Your task to perform on an android device: toggle notifications settings in the gmail app Image 0: 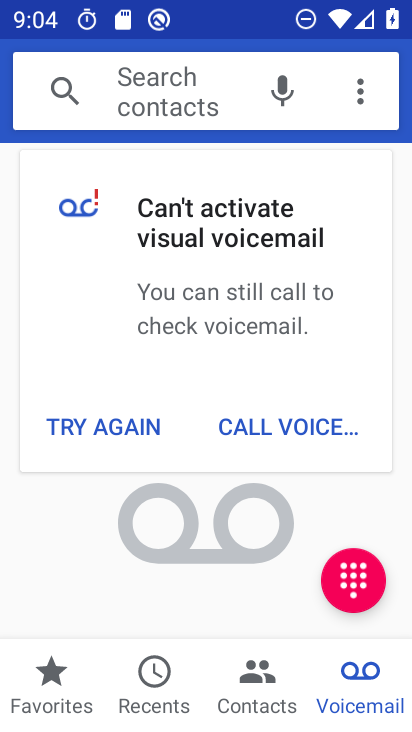
Step 0: press home button
Your task to perform on an android device: toggle notifications settings in the gmail app Image 1: 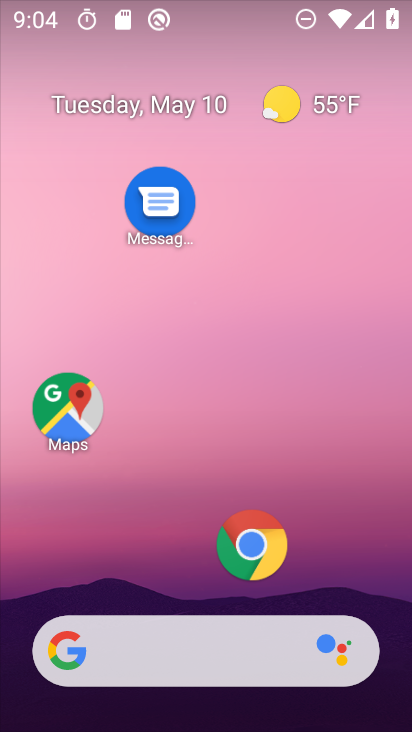
Step 1: drag from (198, 591) to (200, 173)
Your task to perform on an android device: toggle notifications settings in the gmail app Image 2: 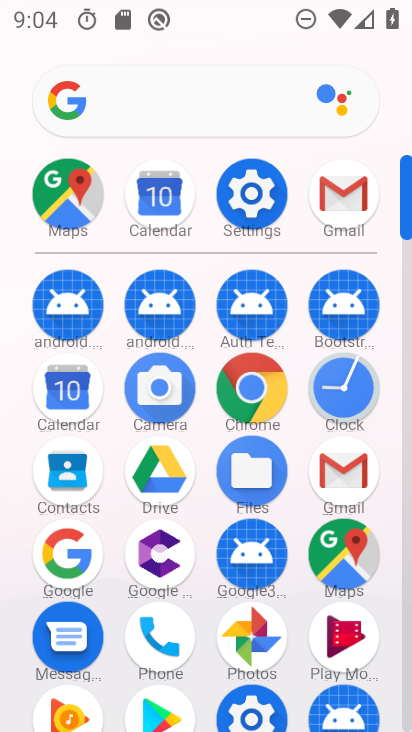
Step 2: click (334, 207)
Your task to perform on an android device: toggle notifications settings in the gmail app Image 3: 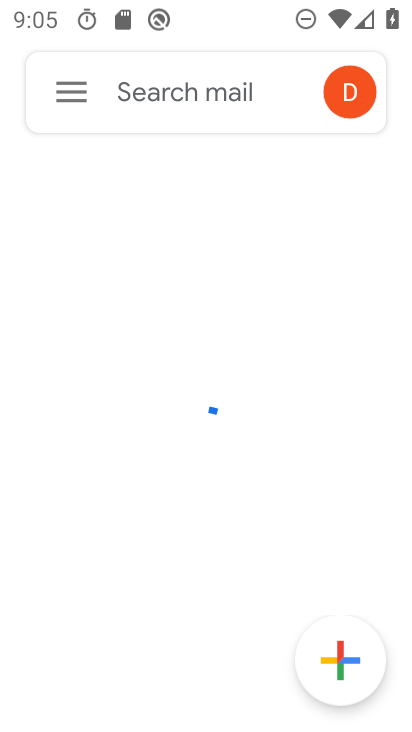
Step 3: click (84, 97)
Your task to perform on an android device: toggle notifications settings in the gmail app Image 4: 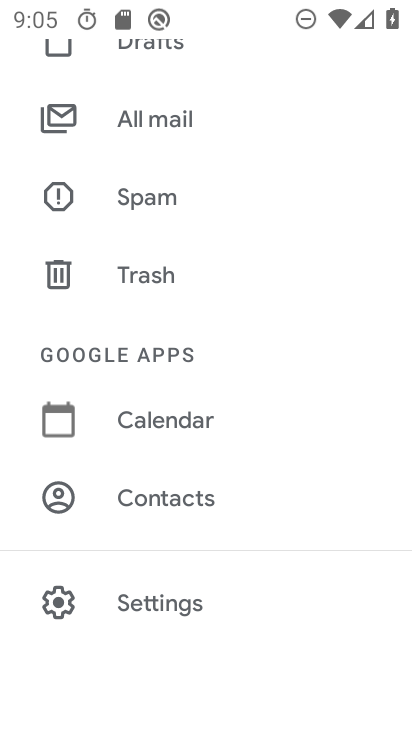
Step 4: click (171, 586)
Your task to perform on an android device: toggle notifications settings in the gmail app Image 5: 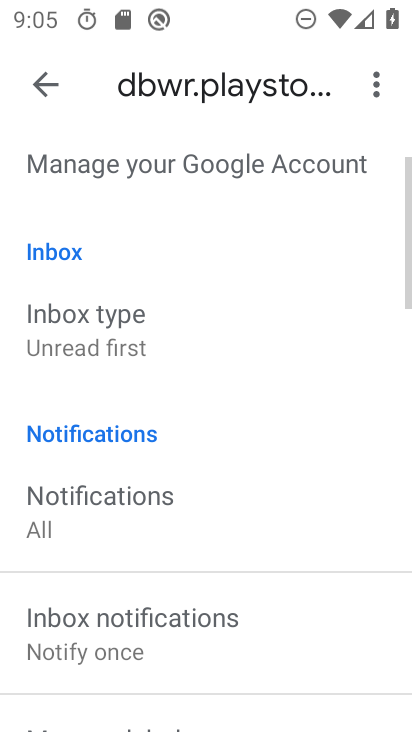
Step 5: drag from (205, 593) to (269, 309)
Your task to perform on an android device: toggle notifications settings in the gmail app Image 6: 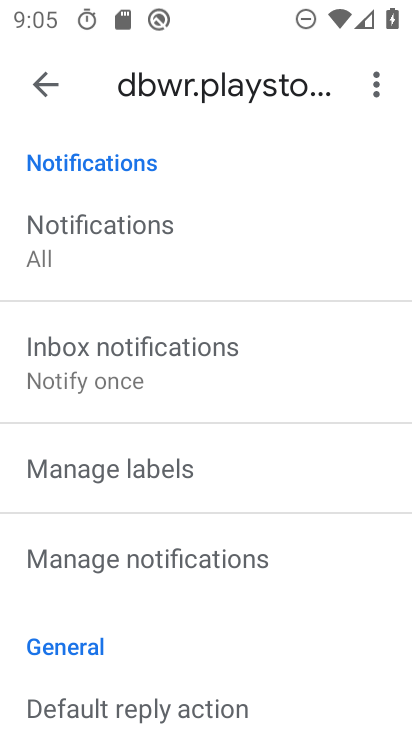
Step 6: click (203, 567)
Your task to perform on an android device: toggle notifications settings in the gmail app Image 7: 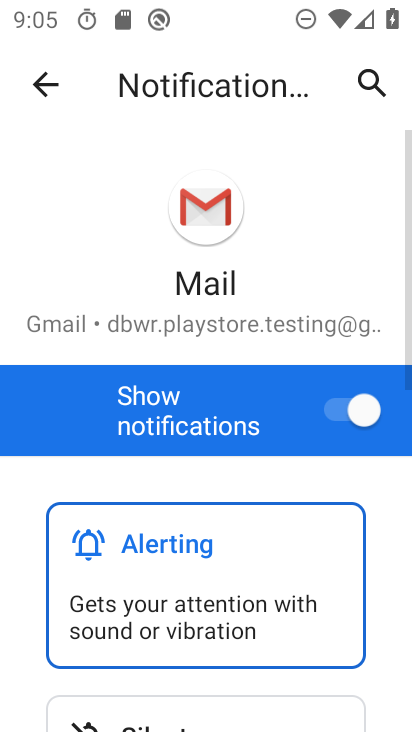
Step 7: click (329, 416)
Your task to perform on an android device: toggle notifications settings in the gmail app Image 8: 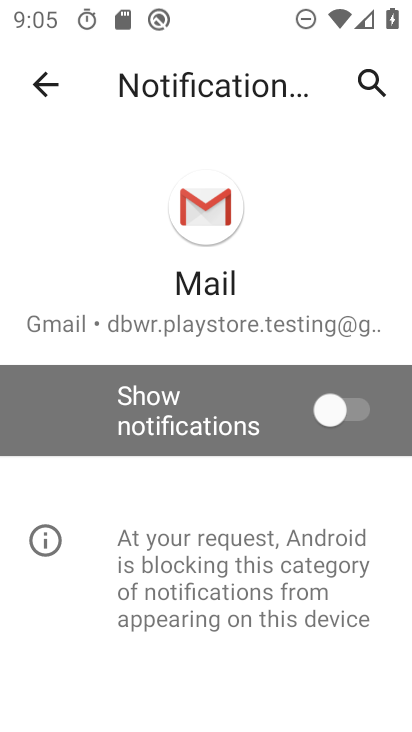
Step 8: task complete